Your task to perform on an android device: Check the news Image 0: 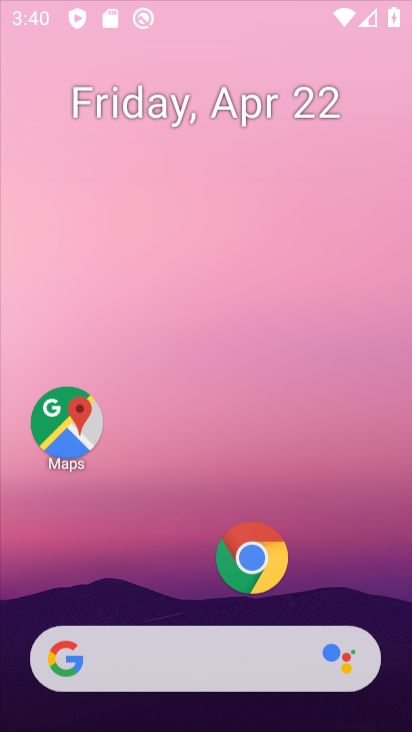
Step 0: click (168, 638)
Your task to perform on an android device: Check the news Image 1: 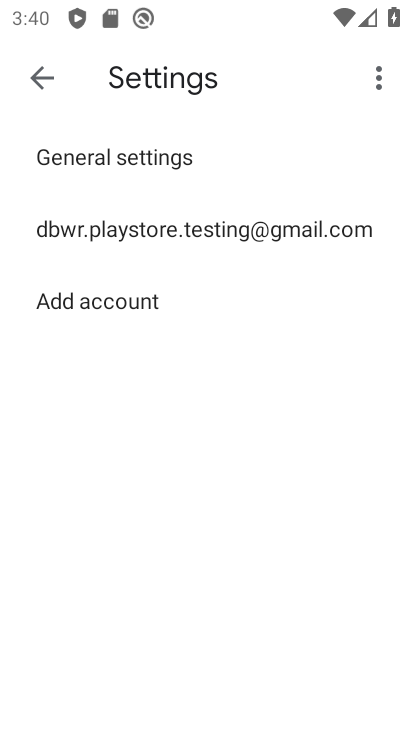
Step 1: press home button
Your task to perform on an android device: Check the news Image 2: 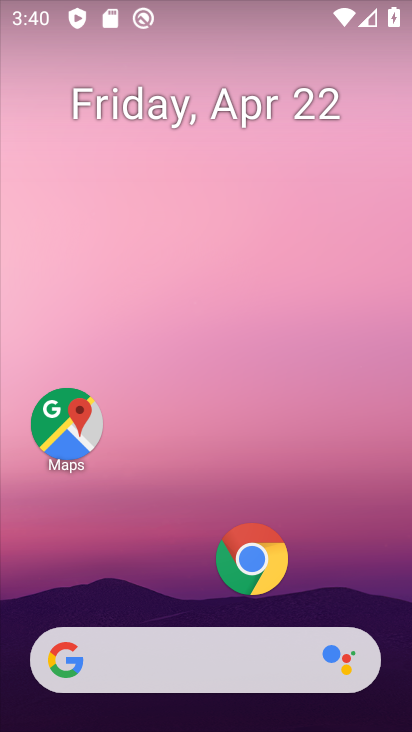
Step 2: click (127, 650)
Your task to perform on an android device: Check the news Image 3: 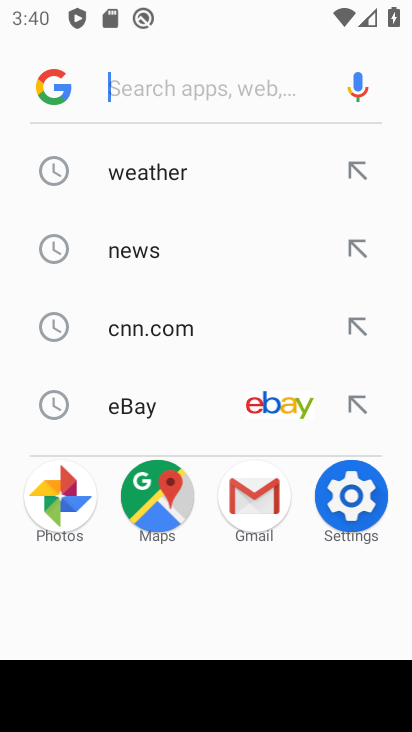
Step 3: click (137, 246)
Your task to perform on an android device: Check the news Image 4: 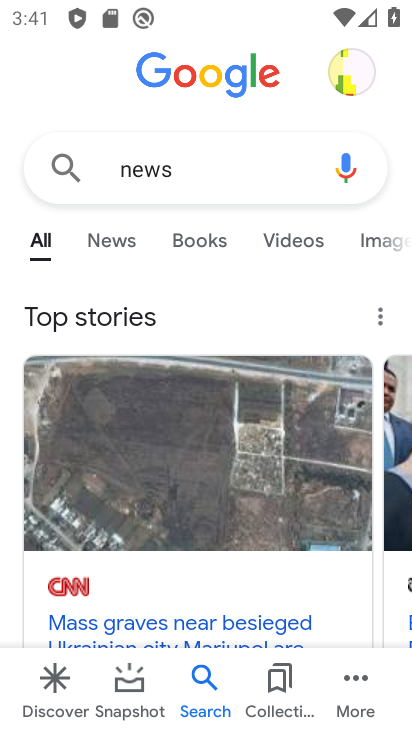
Step 4: task complete